Your task to perform on an android device: Open network settings Image 0: 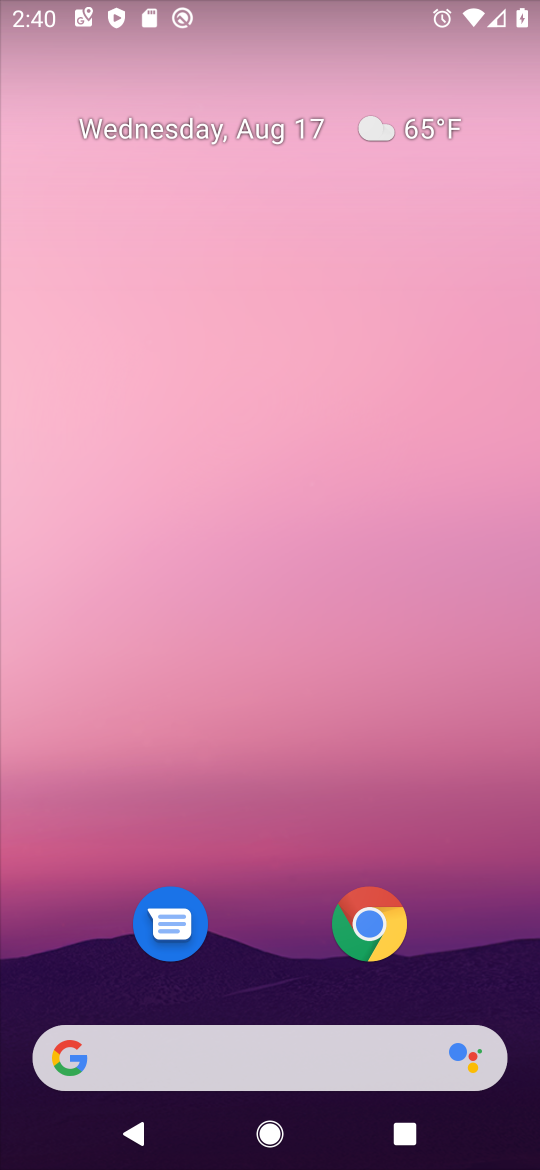
Step 0: drag from (244, 1066) to (291, 283)
Your task to perform on an android device: Open network settings Image 1: 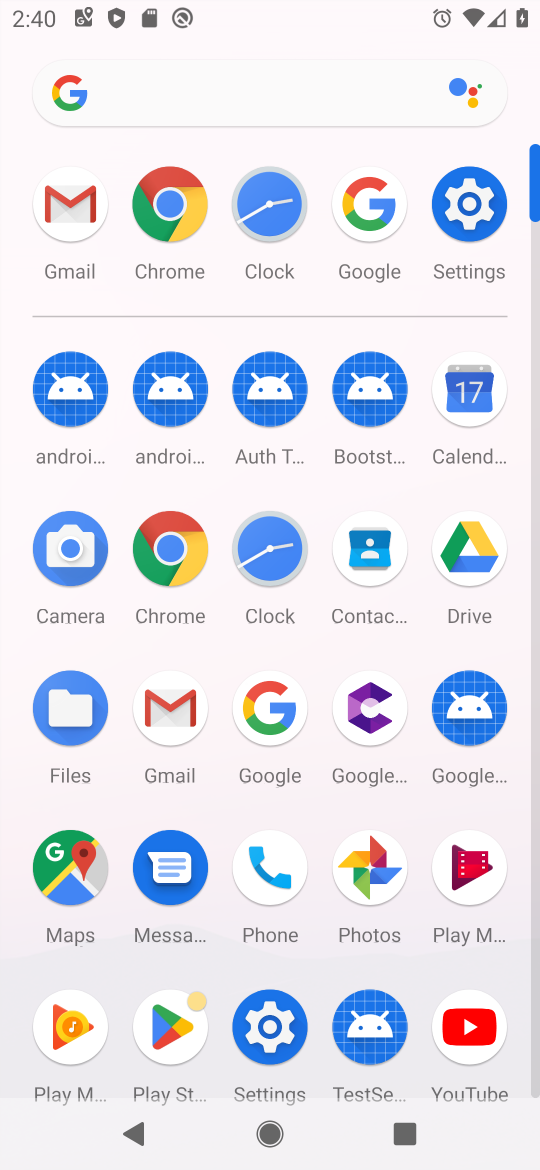
Step 1: click (471, 204)
Your task to perform on an android device: Open network settings Image 2: 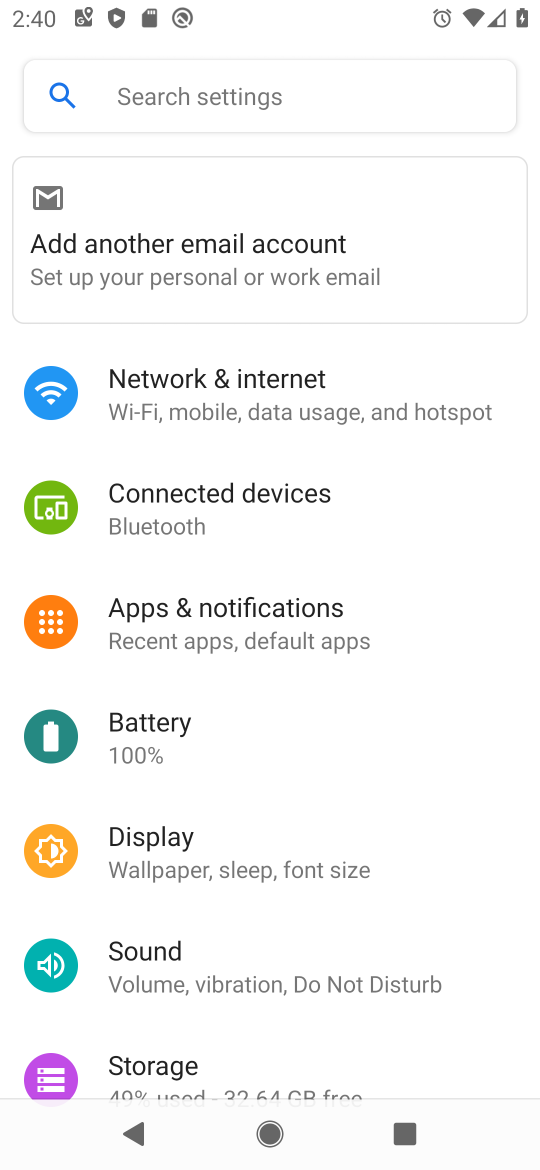
Step 2: click (261, 414)
Your task to perform on an android device: Open network settings Image 3: 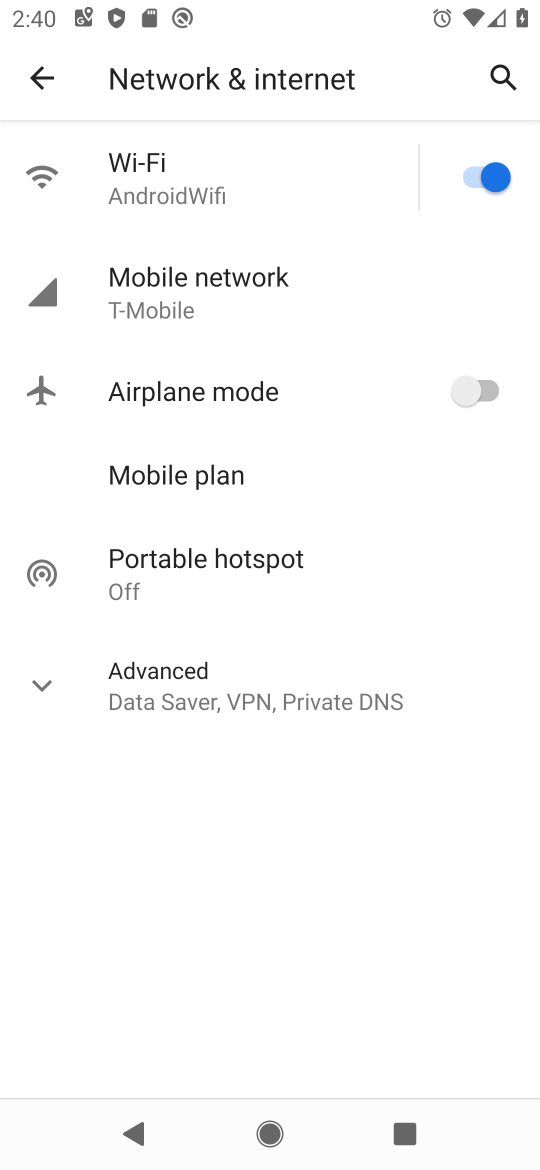
Step 3: task complete